Your task to perform on an android device: choose inbox layout in the gmail app Image 0: 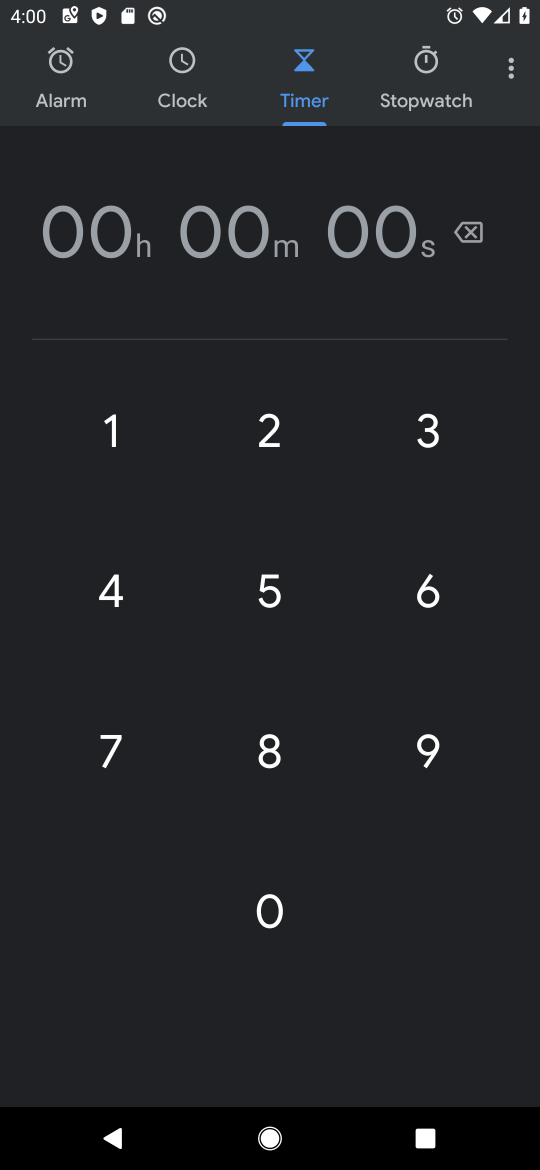
Step 0: press home button
Your task to perform on an android device: choose inbox layout in the gmail app Image 1: 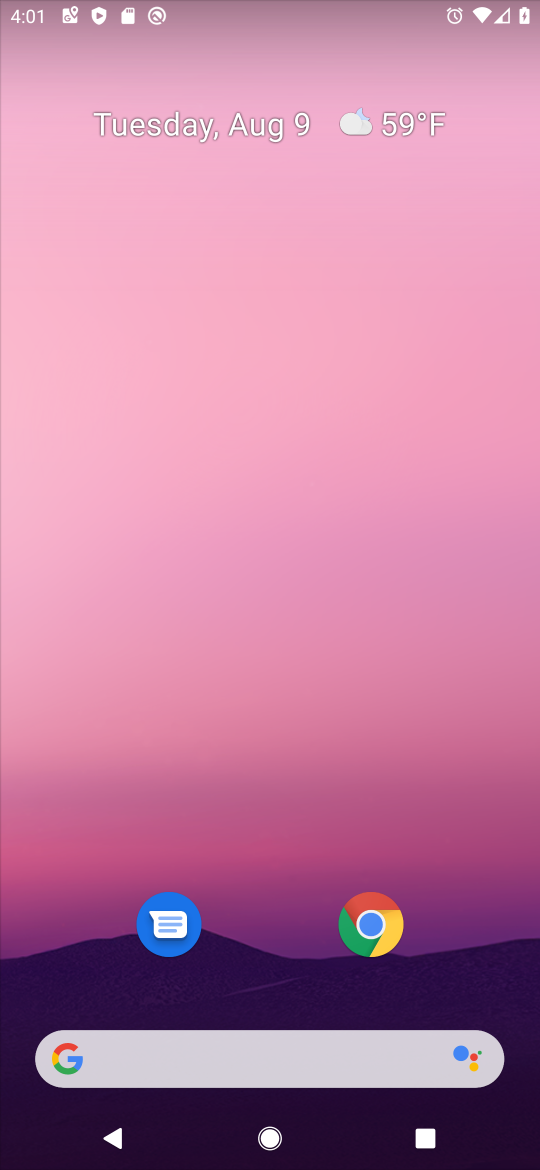
Step 1: drag from (274, 910) to (293, 30)
Your task to perform on an android device: choose inbox layout in the gmail app Image 2: 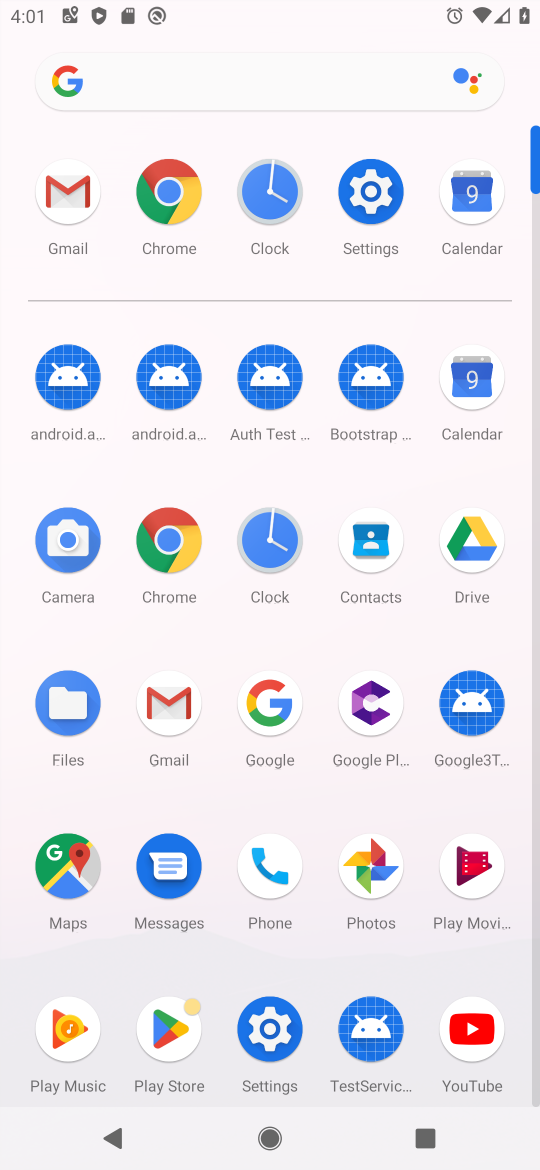
Step 2: click (73, 192)
Your task to perform on an android device: choose inbox layout in the gmail app Image 3: 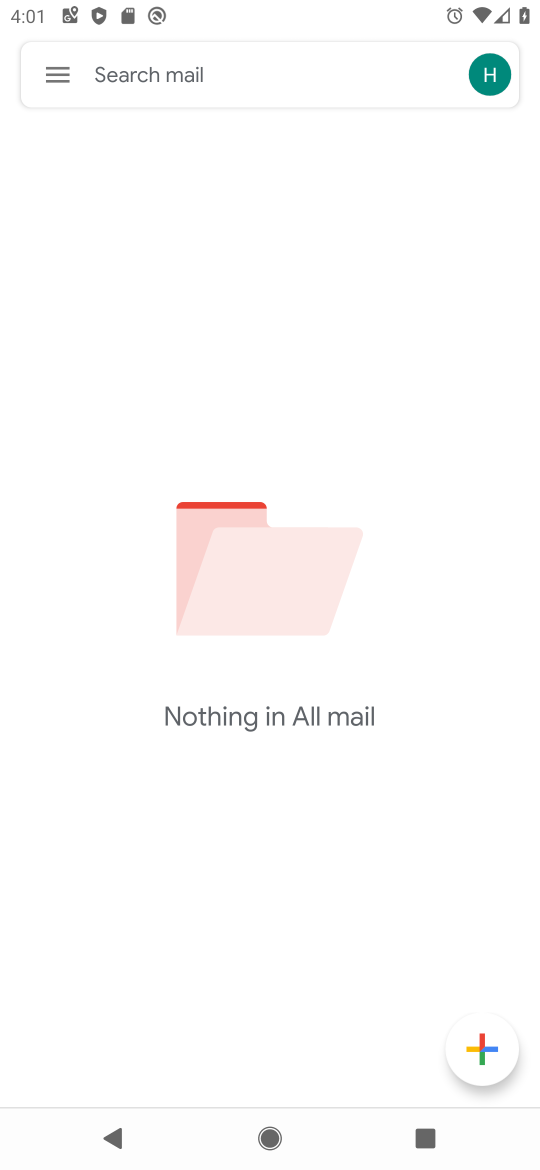
Step 3: click (57, 80)
Your task to perform on an android device: choose inbox layout in the gmail app Image 4: 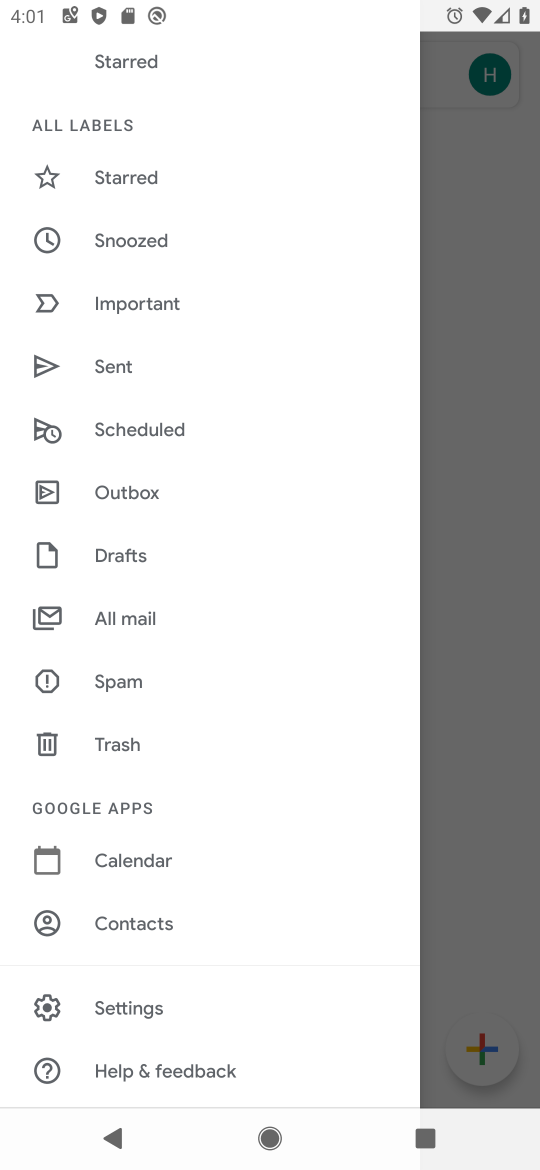
Step 4: click (125, 997)
Your task to perform on an android device: choose inbox layout in the gmail app Image 5: 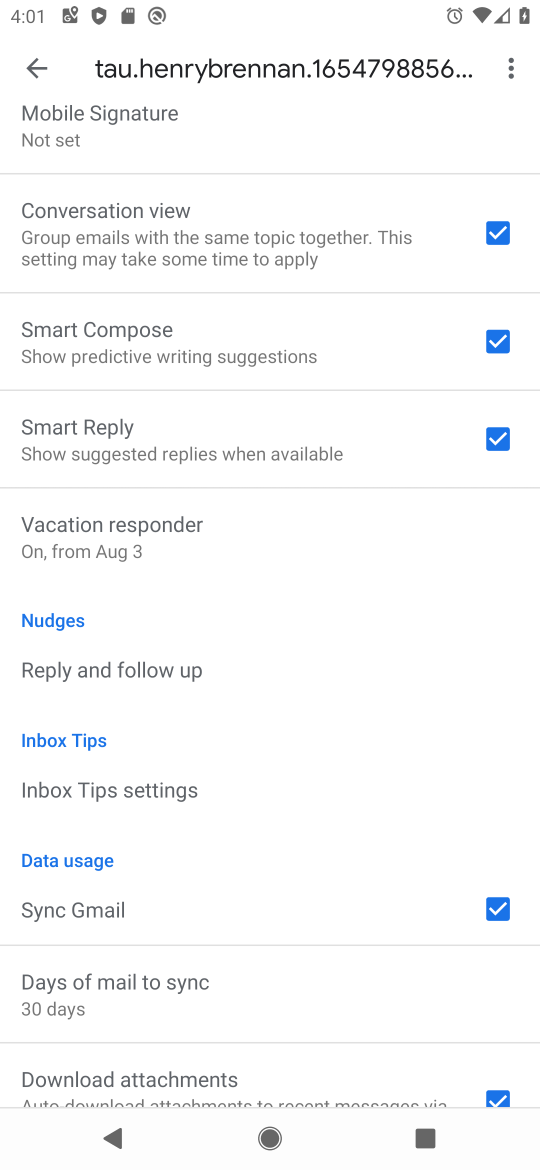
Step 5: drag from (344, 379) to (308, 1055)
Your task to perform on an android device: choose inbox layout in the gmail app Image 6: 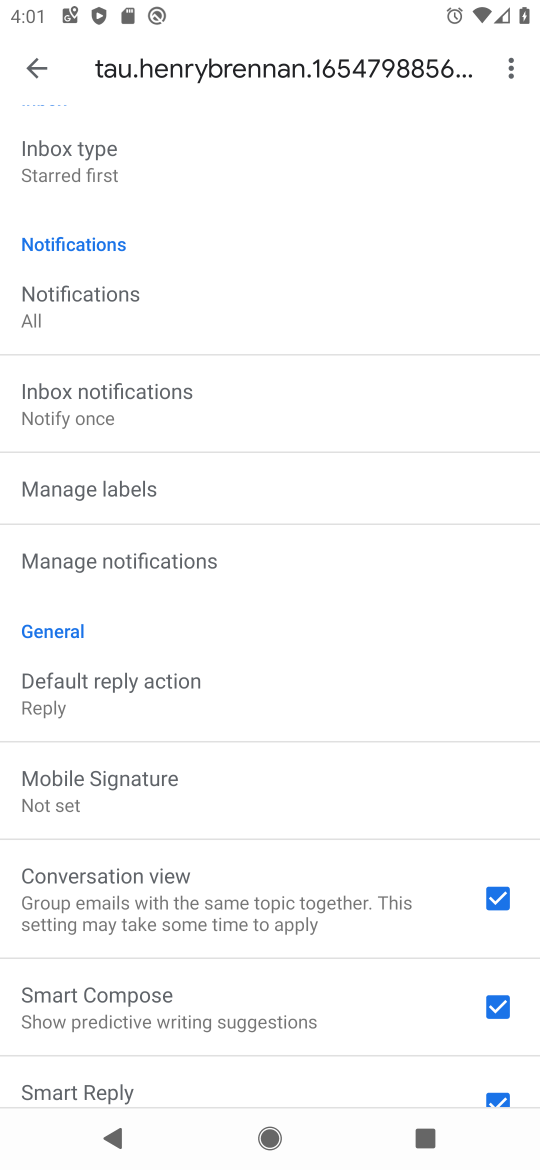
Step 6: drag from (199, 299) to (189, 894)
Your task to perform on an android device: choose inbox layout in the gmail app Image 7: 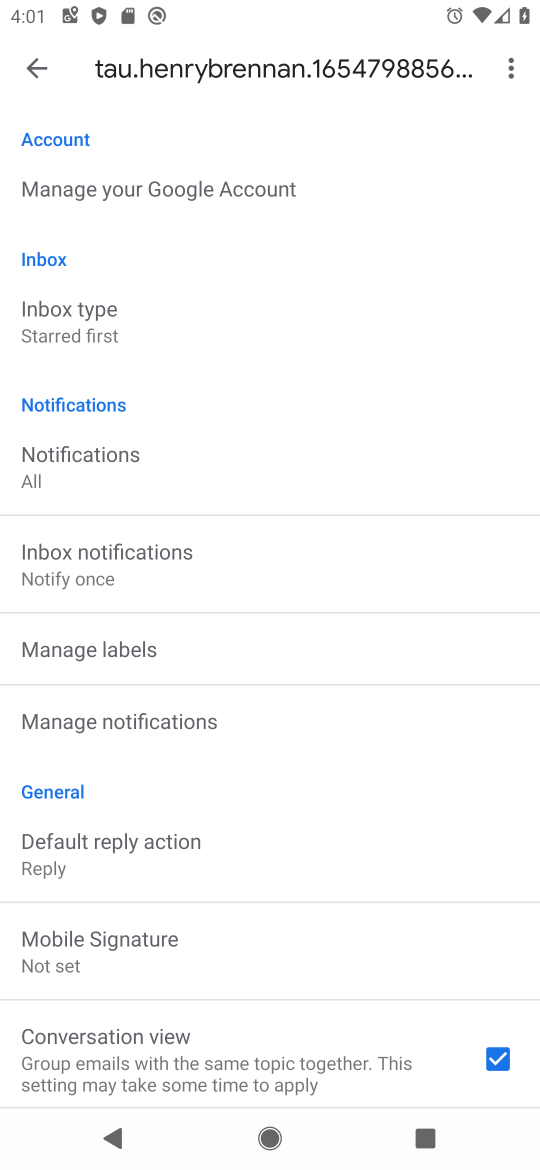
Step 7: click (97, 312)
Your task to perform on an android device: choose inbox layout in the gmail app Image 8: 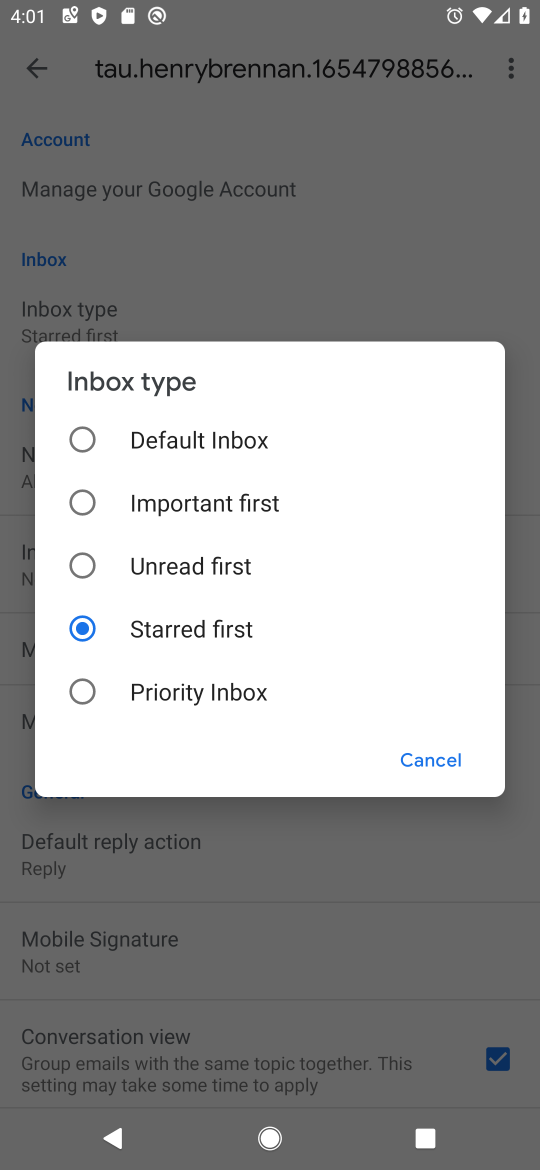
Step 8: click (81, 427)
Your task to perform on an android device: choose inbox layout in the gmail app Image 9: 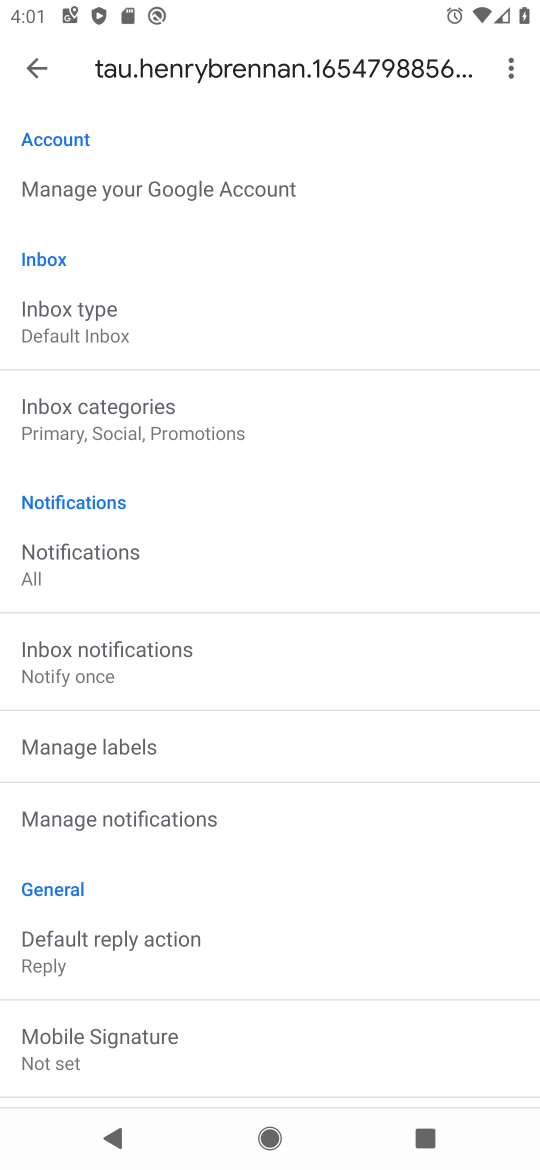
Step 9: task complete